Your task to perform on an android device: Go to internet settings Image 0: 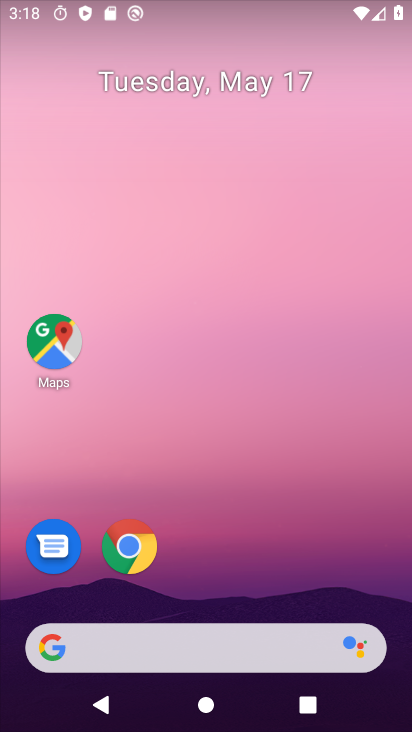
Step 0: drag from (260, 618) to (293, 10)
Your task to perform on an android device: Go to internet settings Image 1: 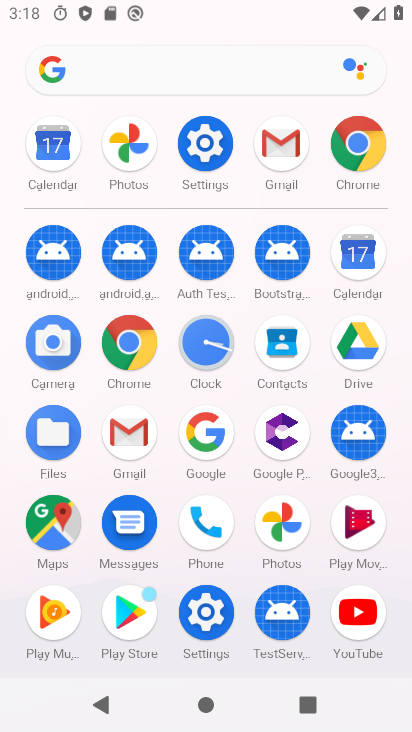
Step 1: click (215, 160)
Your task to perform on an android device: Go to internet settings Image 2: 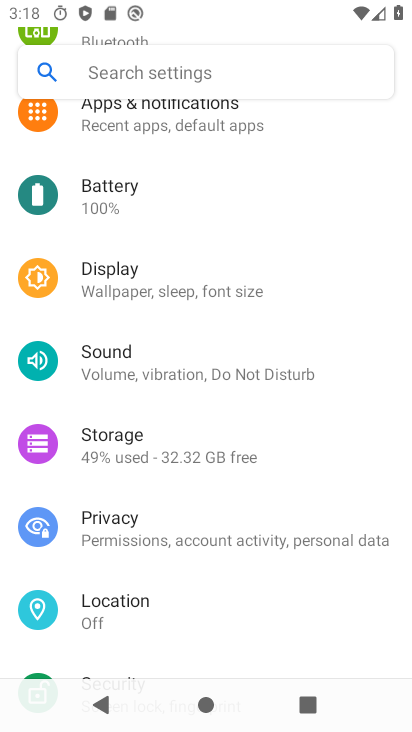
Step 2: drag from (210, 339) to (207, 585)
Your task to perform on an android device: Go to internet settings Image 3: 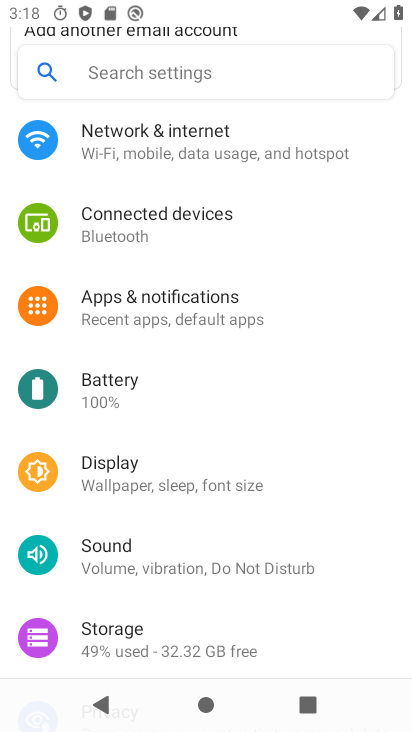
Step 3: drag from (221, 278) to (228, 546)
Your task to perform on an android device: Go to internet settings Image 4: 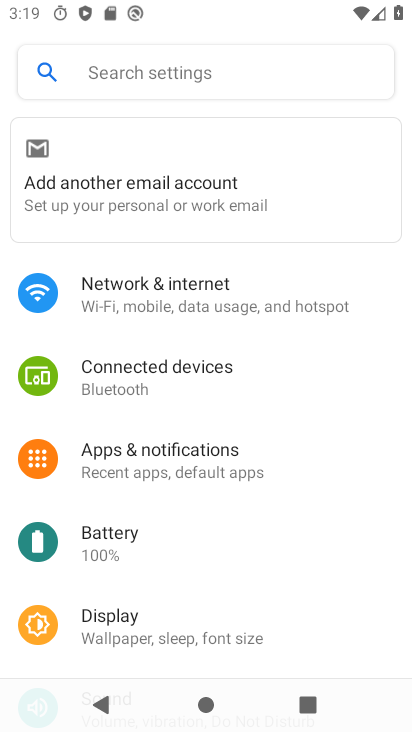
Step 4: click (193, 311)
Your task to perform on an android device: Go to internet settings Image 5: 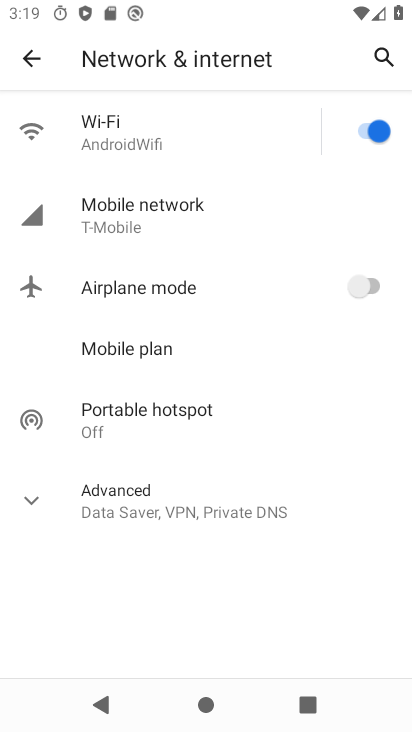
Step 5: click (176, 208)
Your task to perform on an android device: Go to internet settings Image 6: 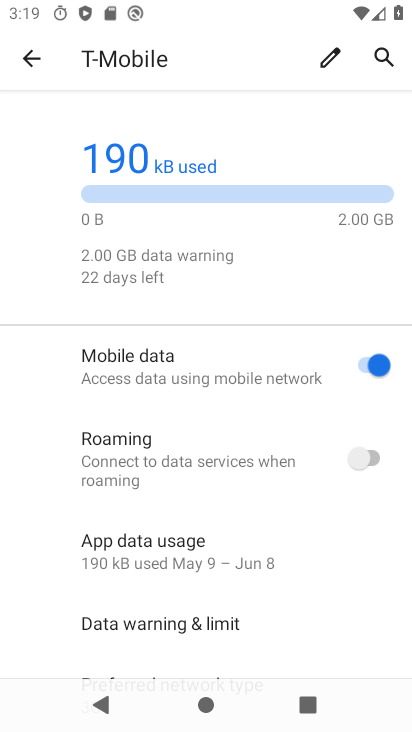
Step 6: task complete